Your task to perform on an android device: uninstall "Duolingo: language lessons" Image 0: 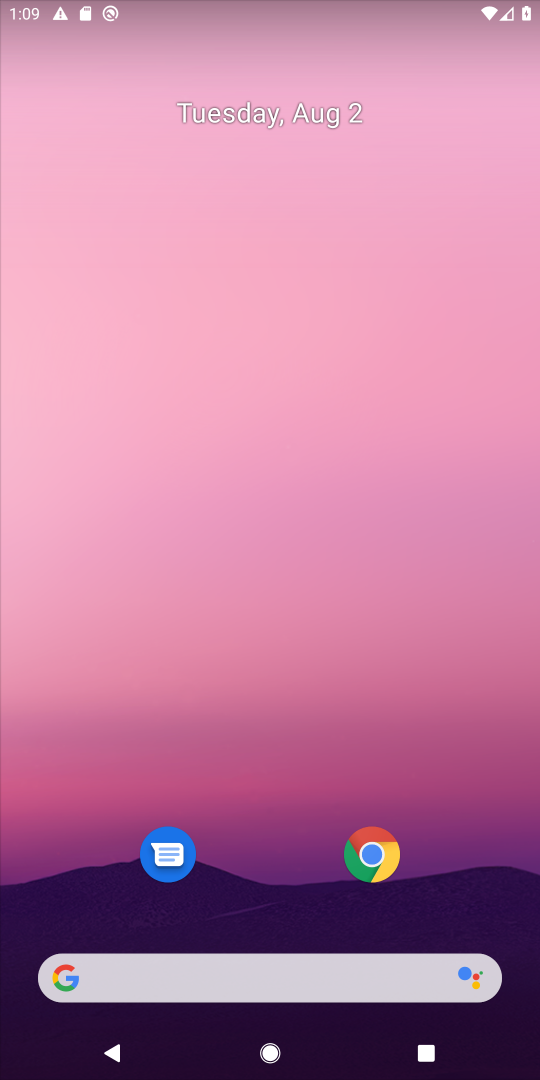
Step 0: drag from (325, 972) to (336, 8)
Your task to perform on an android device: uninstall "Duolingo: language lessons" Image 1: 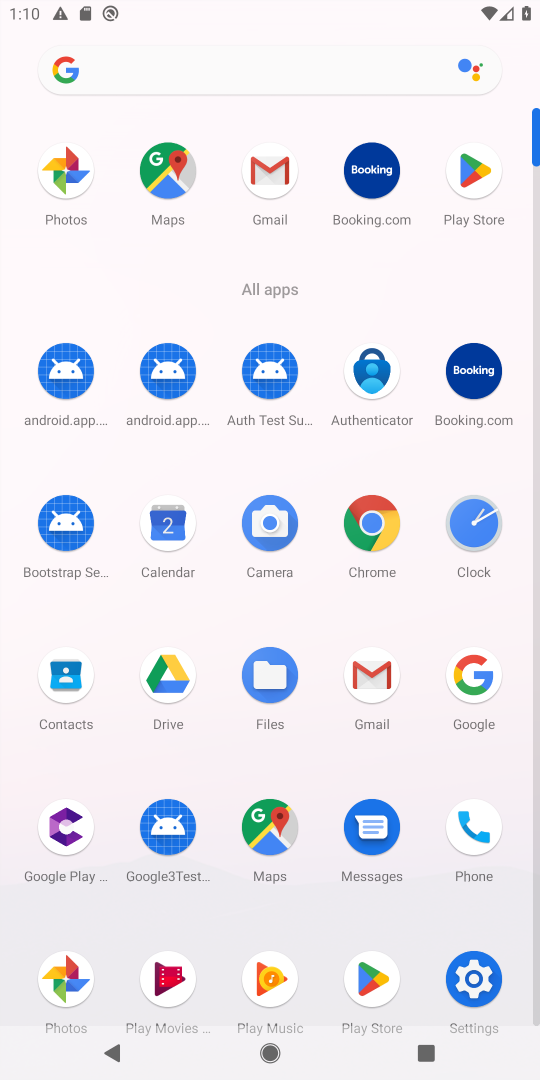
Step 1: click (375, 981)
Your task to perform on an android device: uninstall "Duolingo: language lessons" Image 2: 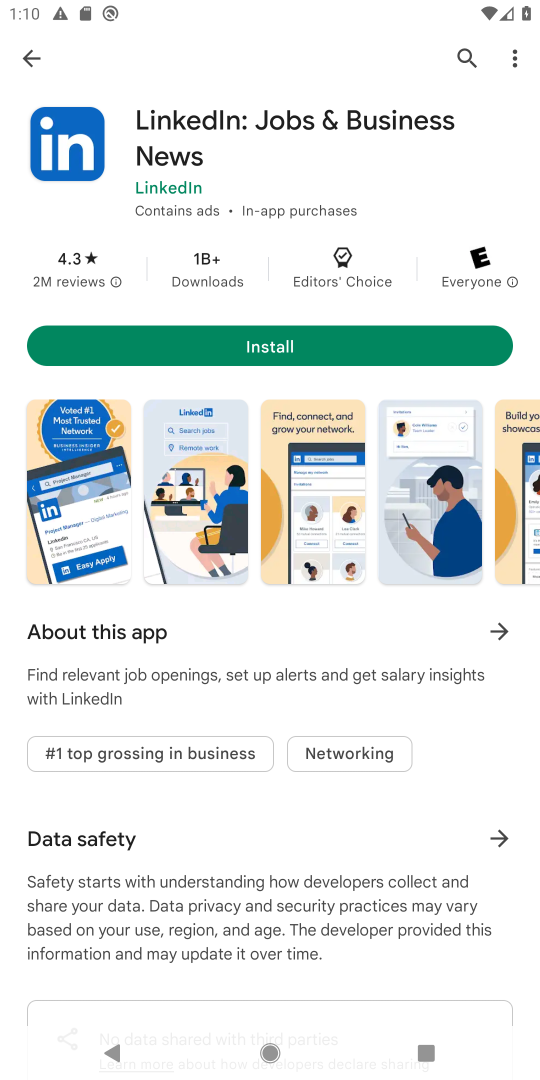
Step 2: click (464, 49)
Your task to perform on an android device: uninstall "Duolingo: language lessons" Image 3: 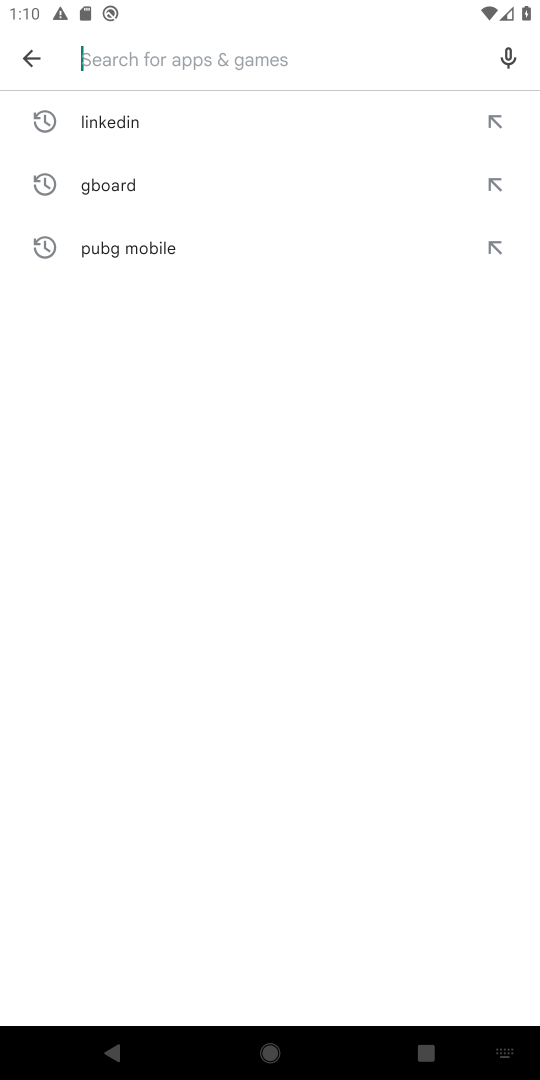
Step 3: type "Duolingo: language lessons"
Your task to perform on an android device: uninstall "Duolingo: language lessons" Image 4: 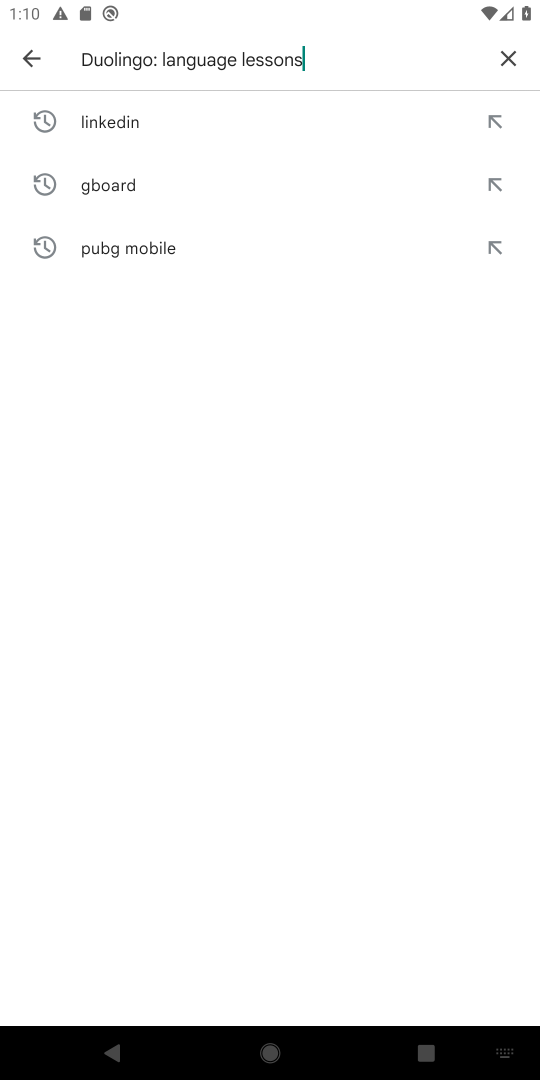
Step 4: type ""
Your task to perform on an android device: uninstall "Duolingo: language lessons" Image 5: 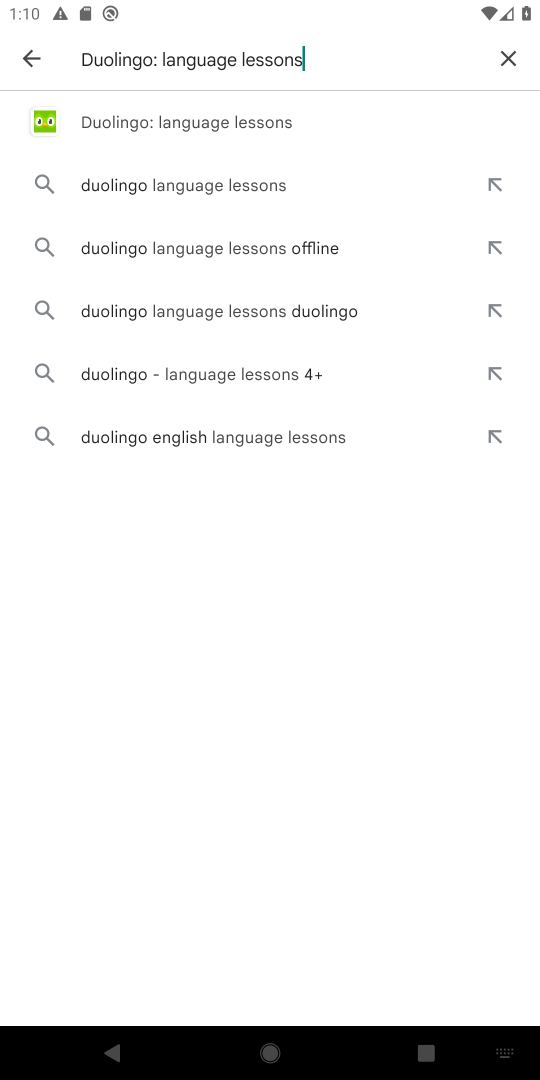
Step 5: click (228, 125)
Your task to perform on an android device: uninstall "Duolingo: language lessons" Image 6: 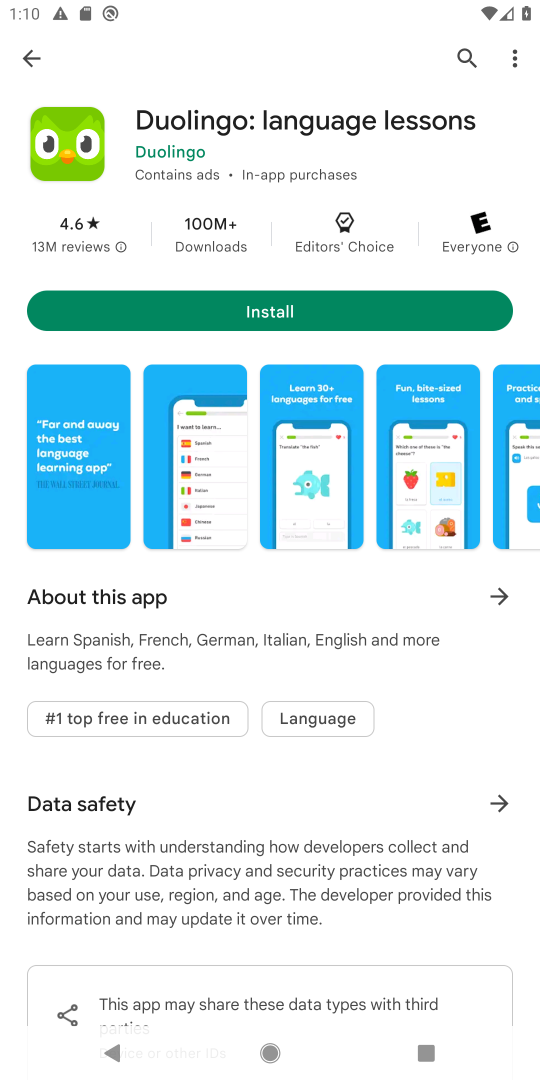
Step 6: task complete